Your task to perform on an android device: Go to Reddit.com Image 0: 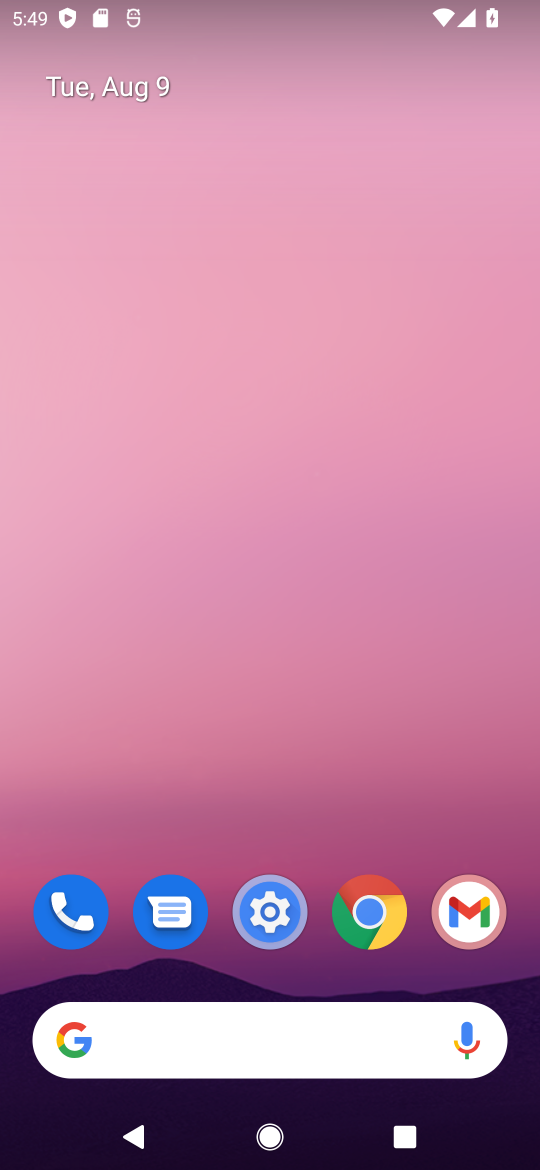
Step 0: press home button
Your task to perform on an android device: Go to Reddit.com Image 1: 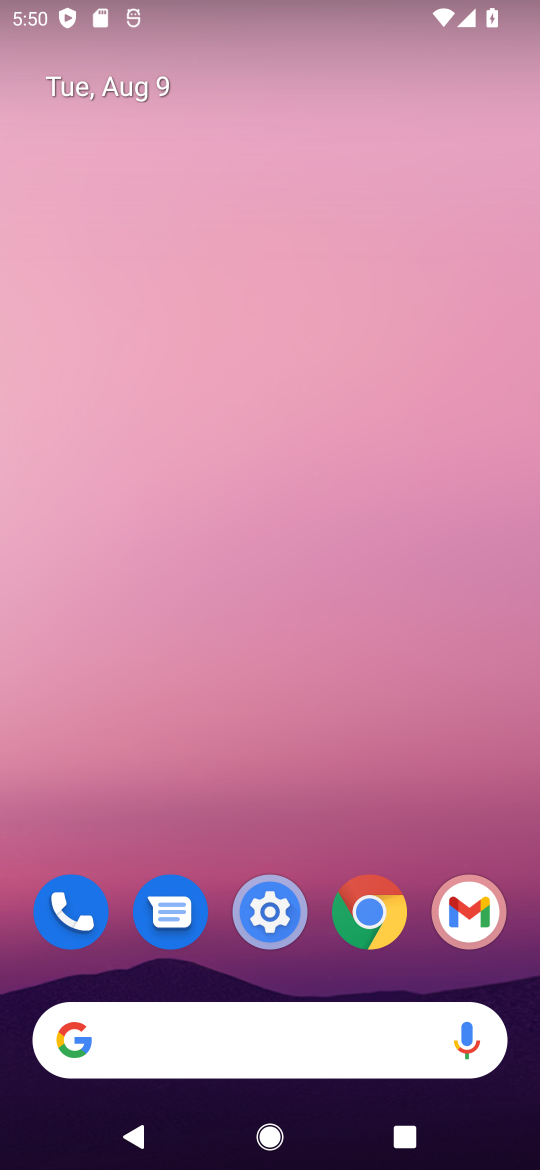
Step 1: click (67, 1025)
Your task to perform on an android device: Go to Reddit.com Image 2: 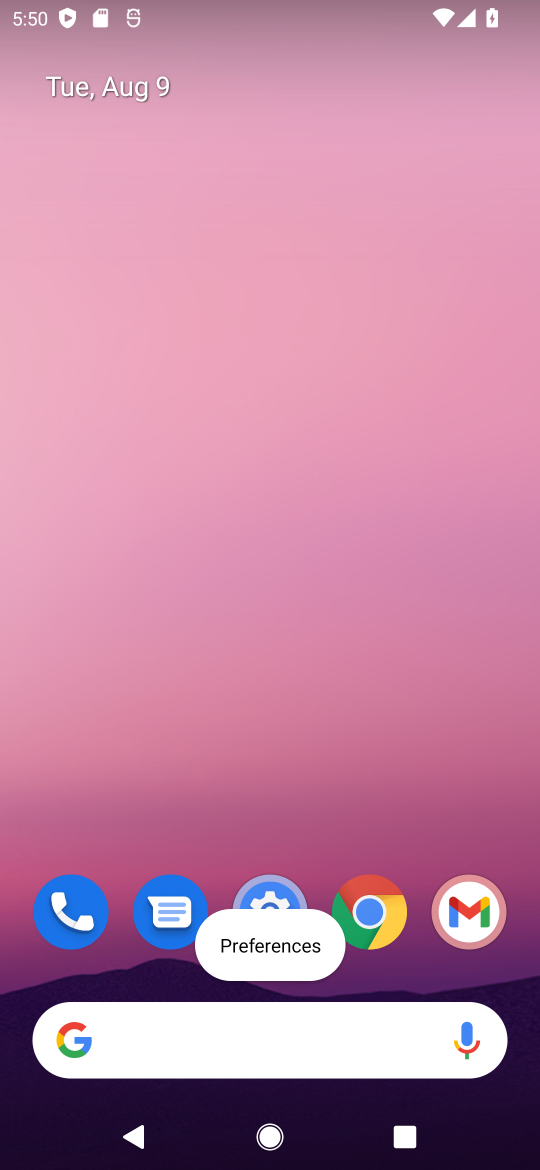
Step 2: click (72, 1032)
Your task to perform on an android device: Go to Reddit.com Image 3: 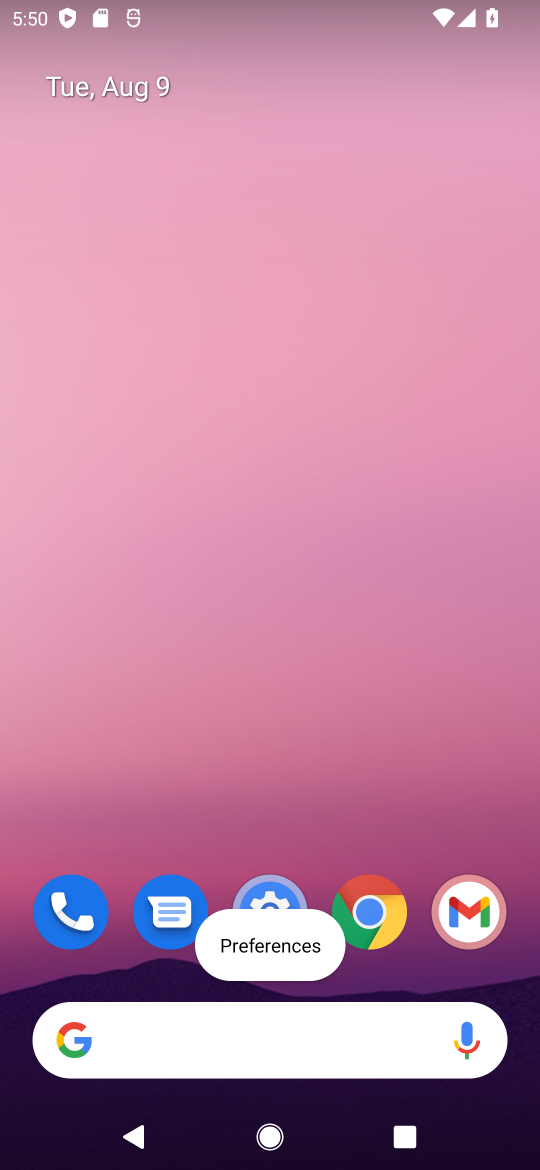
Step 3: click (69, 1015)
Your task to perform on an android device: Go to Reddit.com Image 4: 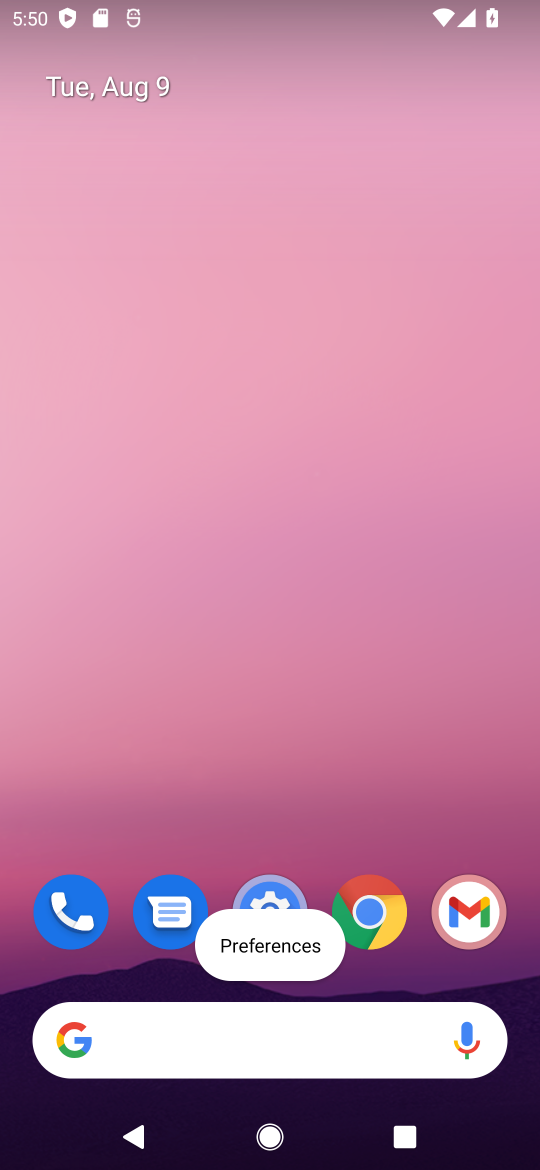
Step 4: click (79, 1038)
Your task to perform on an android device: Go to Reddit.com Image 5: 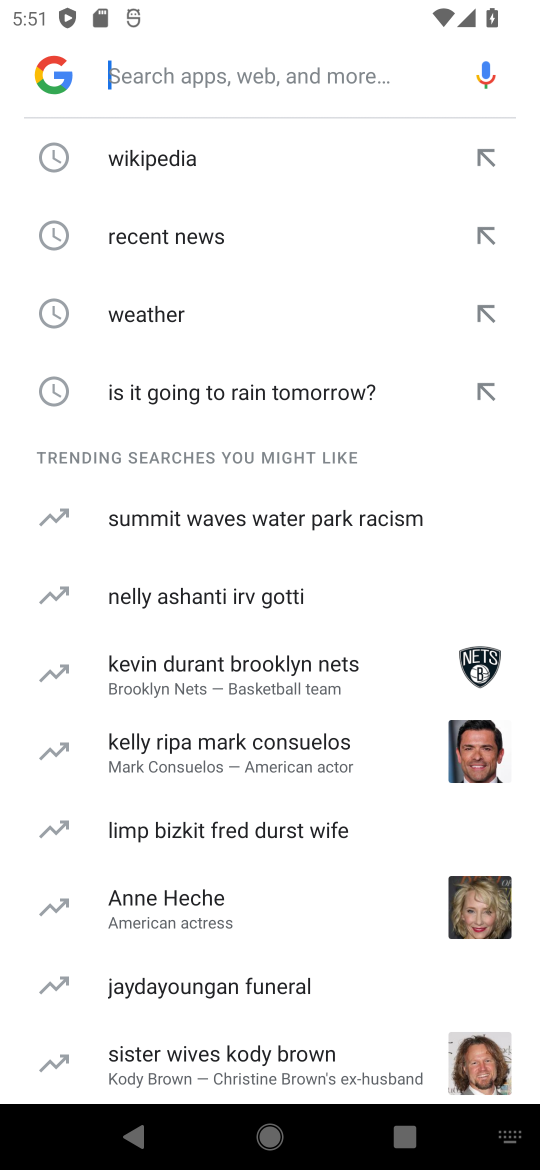
Step 5: type "Reddit.com"
Your task to perform on an android device: Go to Reddit.com Image 6: 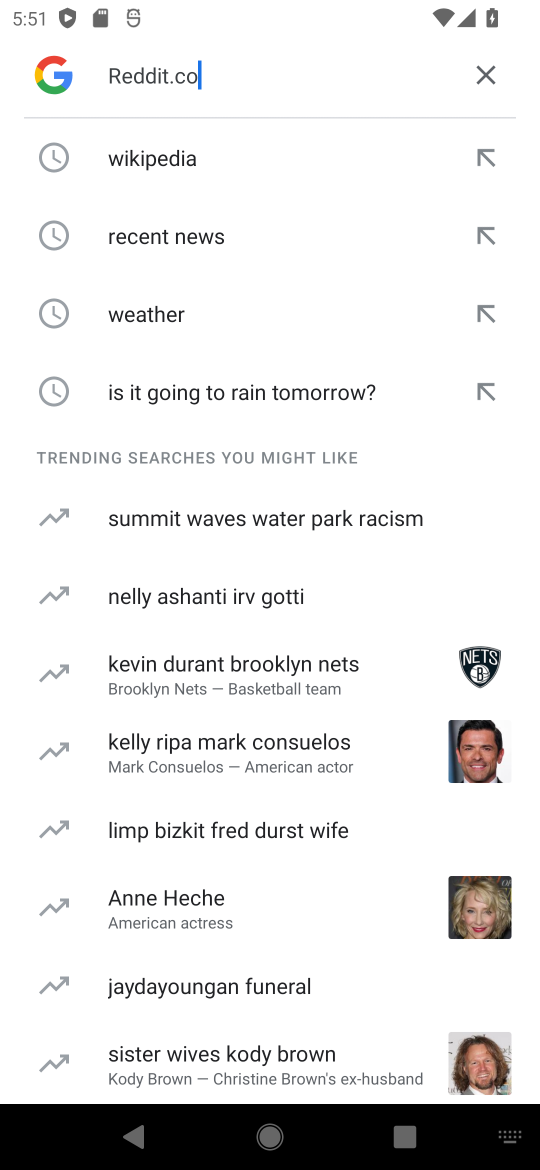
Step 6: press enter
Your task to perform on an android device: Go to Reddit.com Image 7: 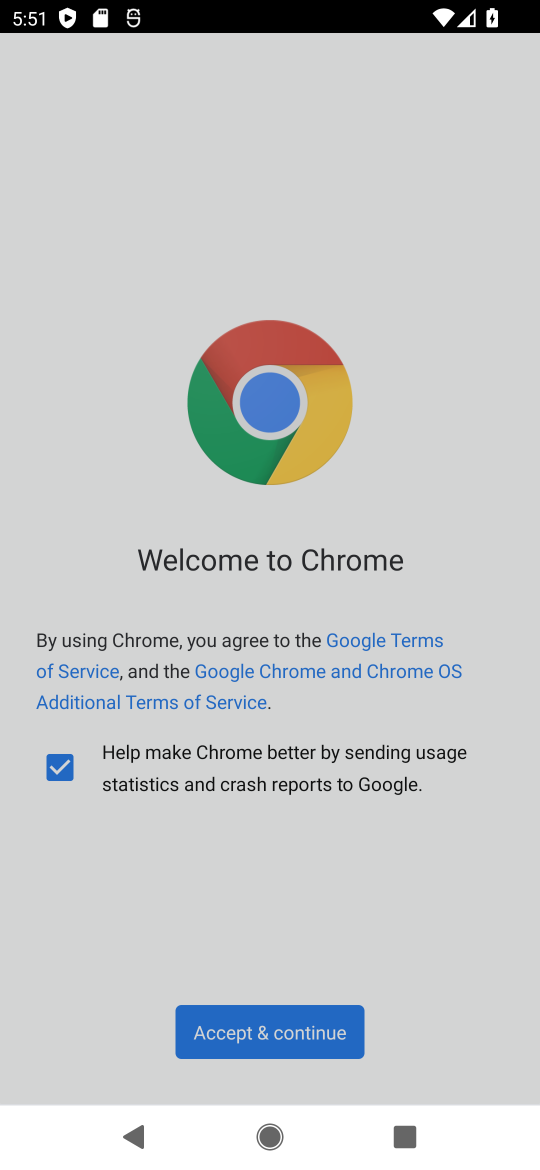
Step 7: click (265, 1043)
Your task to perform on an android device: Go to Reddit.com Image 8: 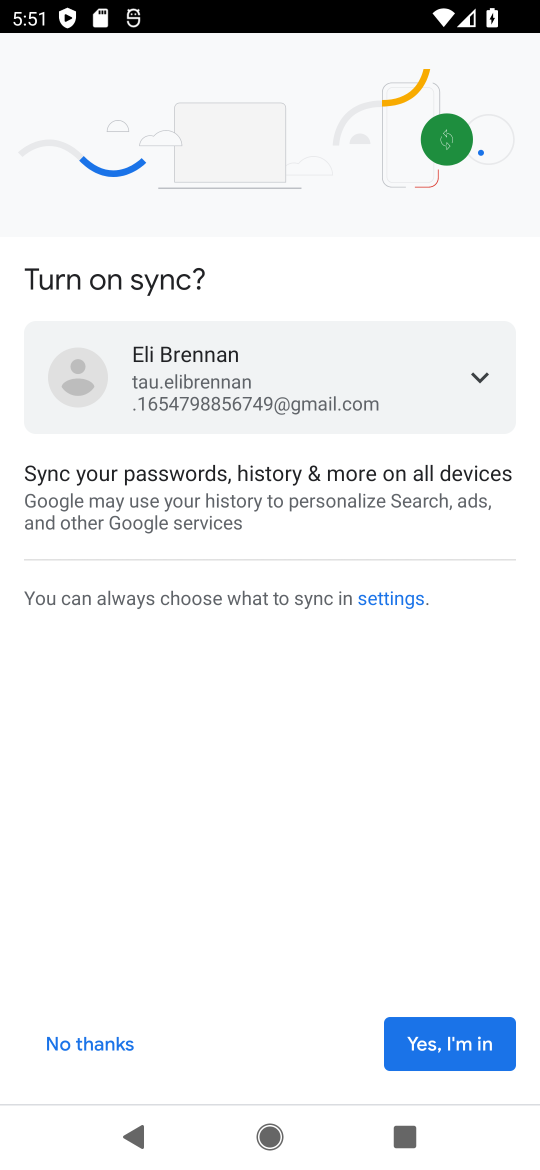
Step 8: click (429, 1064)
Your task to perform on an android device: Go to Reddit.com Image 9: 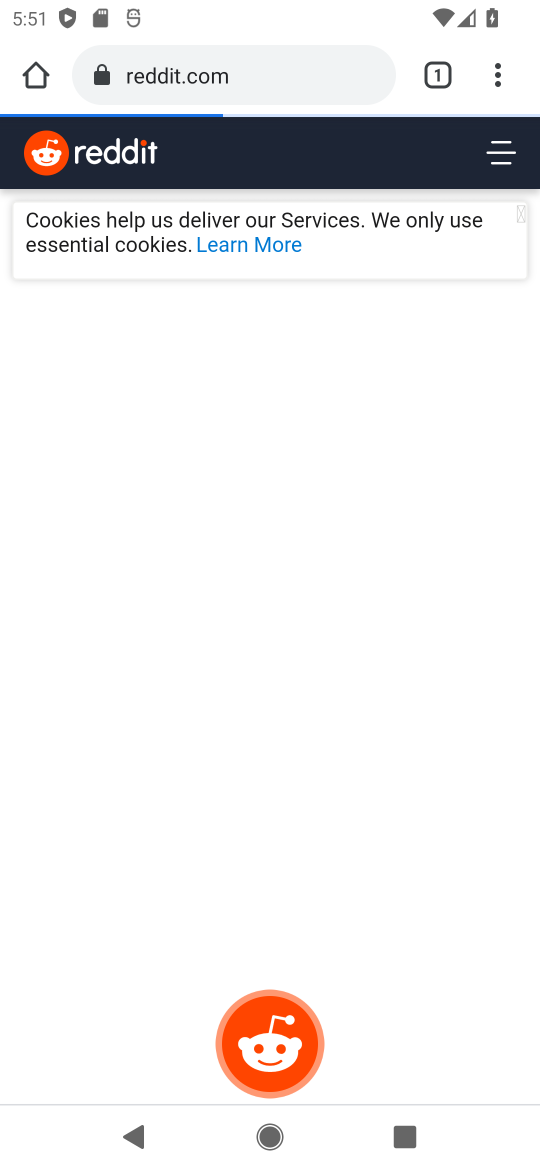
Step 9: task complete